Your task to perform on an android device: Open the stopwatch Image 0: 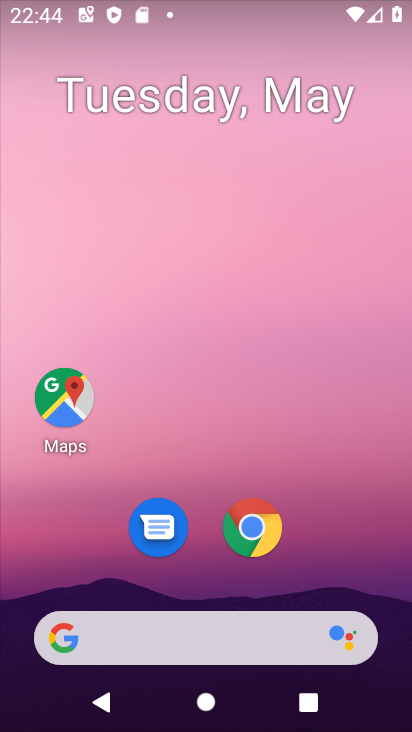
Step 0: click (402, 57)
Your task to perform on an android device: Open the stopwatch Image 1: 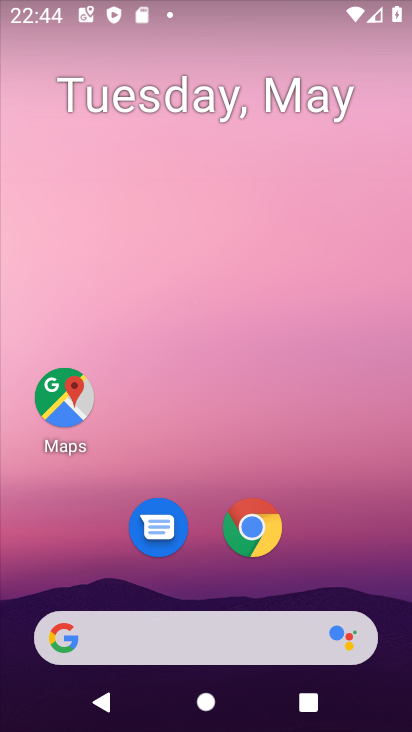
Step 1: drag from (202, 564) to (199, 55)
Your task to perform on an android device: Open the stopwatch Image 2: 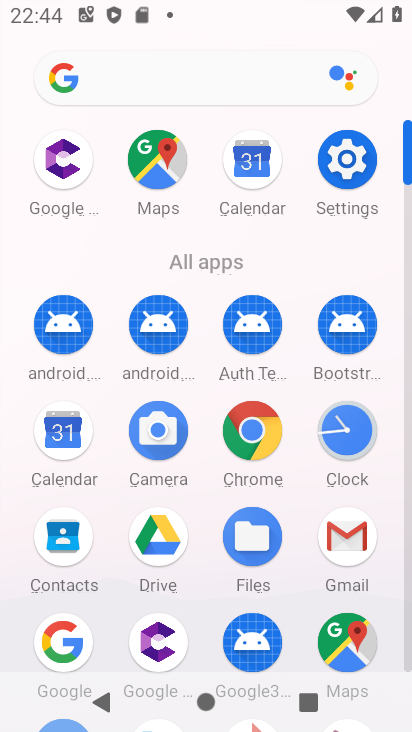
Step 2: click (324, 430)
Your task to perform on an android device: Open the stopwatch Image 3: 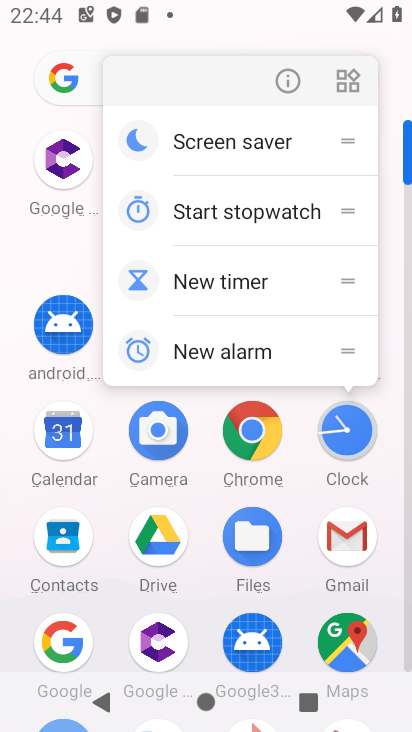
Step 3: click (180, 207)
Your task to perform on an android device: Open the stopwatch Image 4: 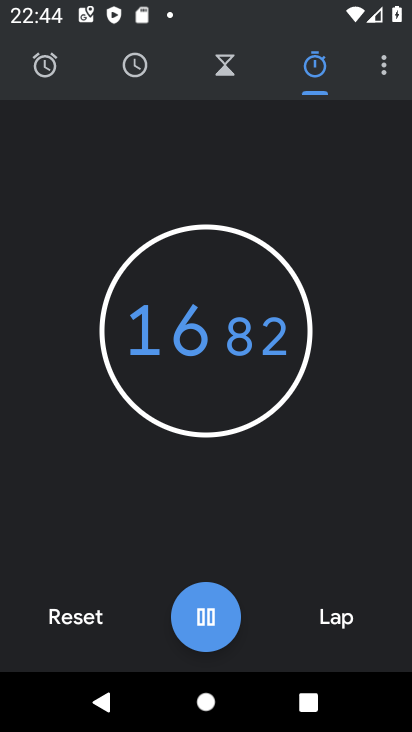
Step 4: task complete